Your task to perform on an android device: Open network settings Image 0: 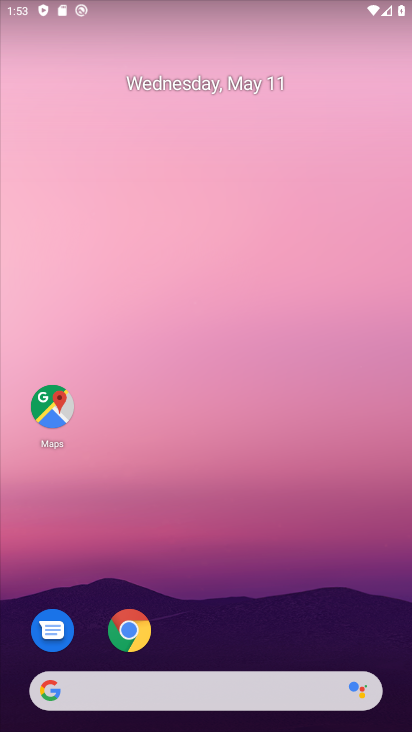
Step 0: drag from (199, 731) to (199, 230)
Your task to perform on an android device: Open network settings Image 1: 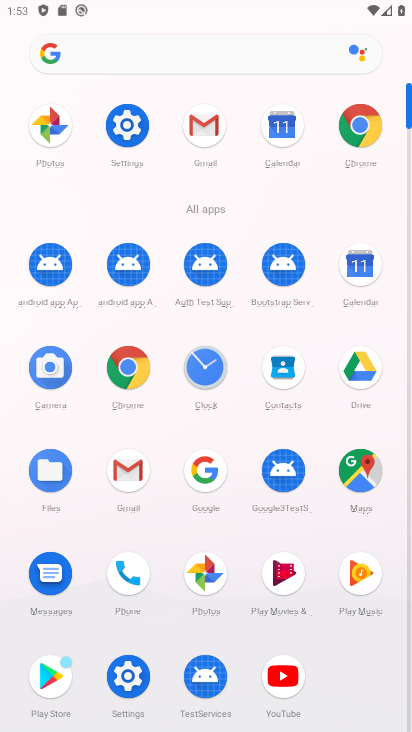
Step 1: click (127, 126)
Your task to perform on an android device: Open network settings Image 2: 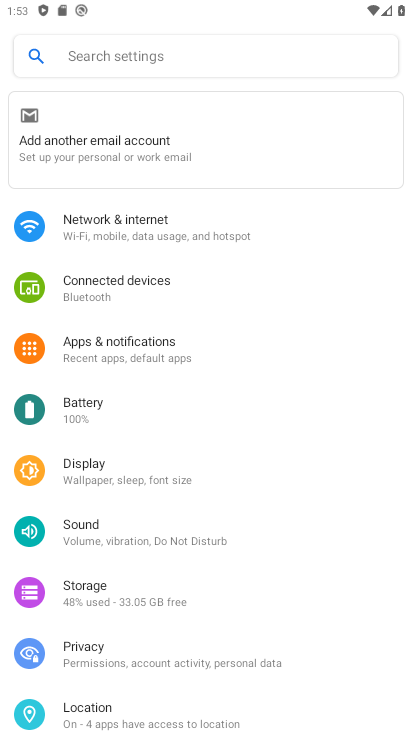
Step 2: click (122, 232)
Your task to perform on an android device: Open network settings Image 3: 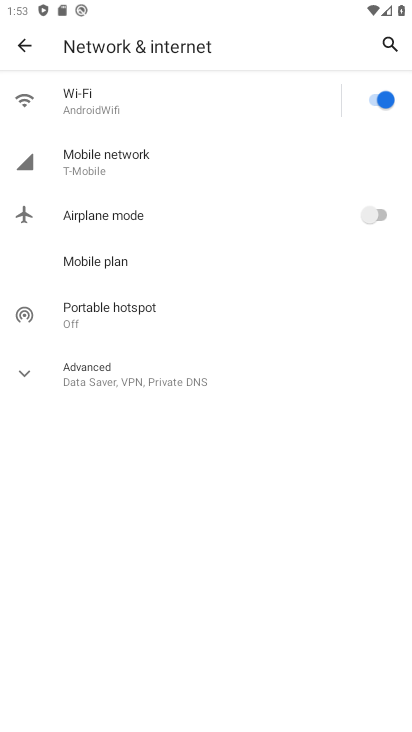
Step 3: click (95, 160)
Your task to perform on an android device: Open network settings Image 4: 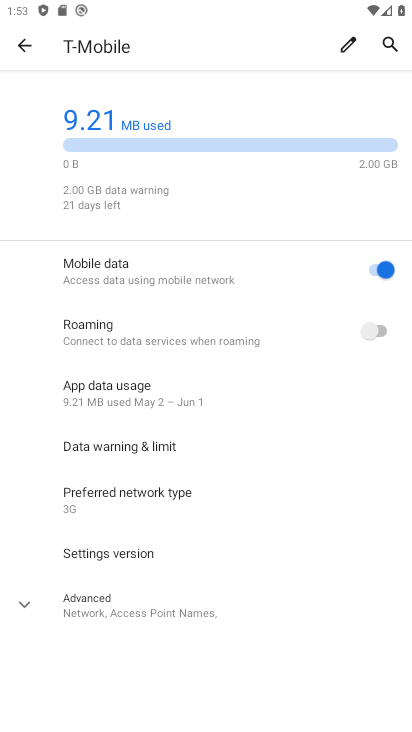
Step 4: task complete